Your task to perform on an android device: refresh tabs in the chrome app Image 0: 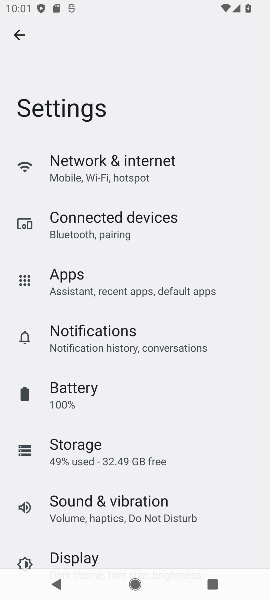
Step 0: press home button
Your task to perform on an android device: refresh tabs in the chrome app Image 1: 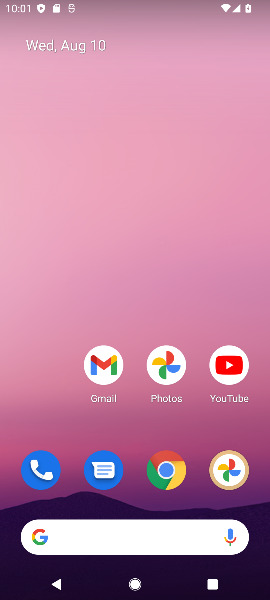
Step 1: click (163, 464)
Your task to perform on an android device: refresh tabs in the chrome app Image 2: 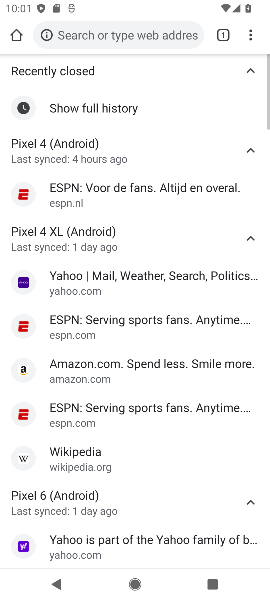
Step 2: click (256, 38)
Your task to perform on an android device: refresh tabs in the chrome app Image 3: 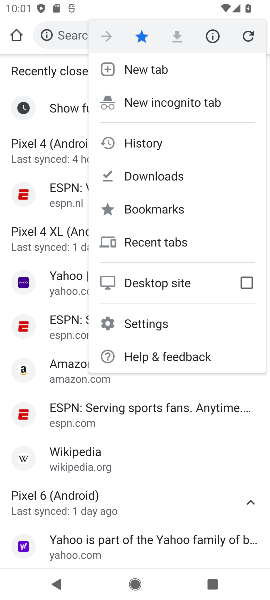
Step 3: click (246, 34)
Your task to perform on an android device: refresh tabs in the chrome app Image 4: 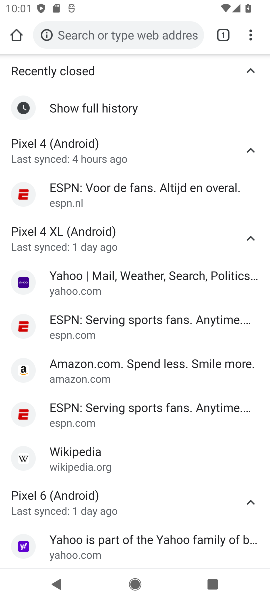
Step 4: task complete